Your task to perform on an android device: turn off sleep mode Image 0: 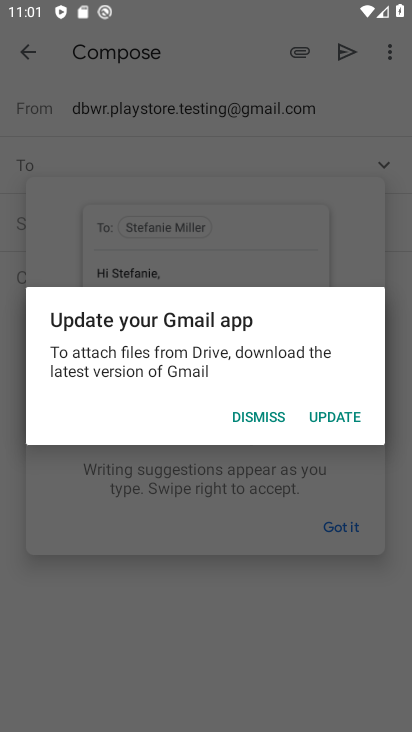
Step 0: press home button
Your task to perform on an android device: turn off sleep mode Image 1: 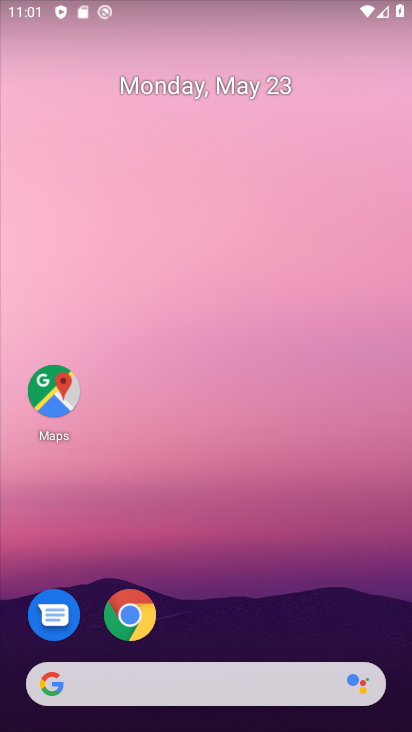
Step 1: drag from (190, 634) to (174, 29)
Your task to perform on an android device: turn off sleep mode Image 2: 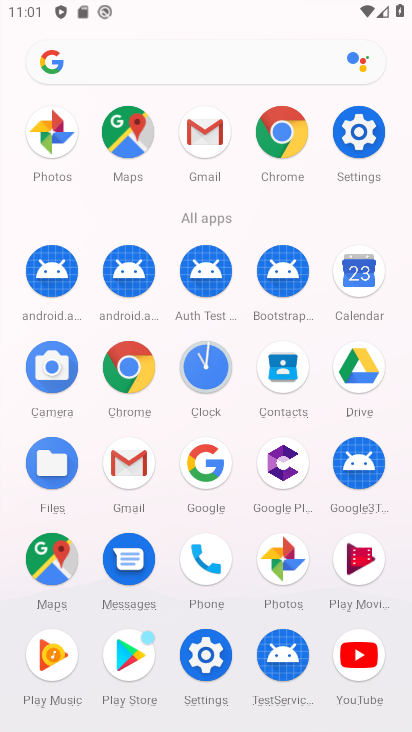
Step 2: click (356, 183)
Your task to perform on an android device: turn off sleep mode Image 3: 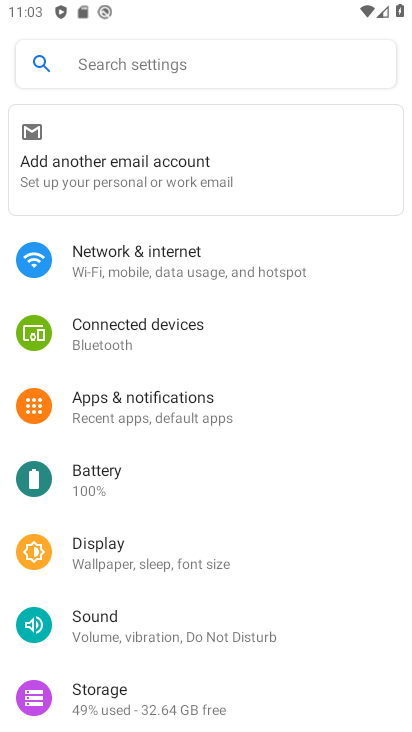
Step 3: task complete